Your task to perform on an android device: Open Android settings Image 0: 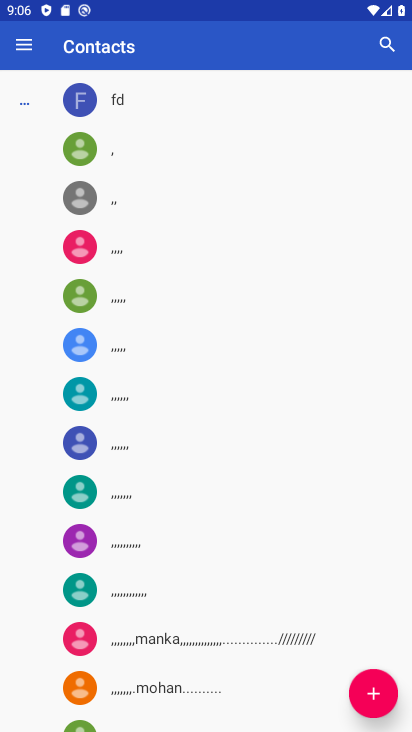
Step 0: press back button
Your task to perform on an android device: Open Android settings Image 1: 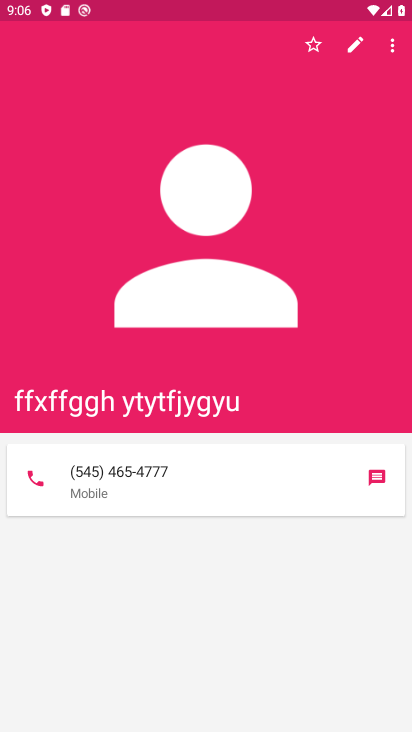
Step 1: press home button
Your task to perform on an android device: Open Android settings Image 2: 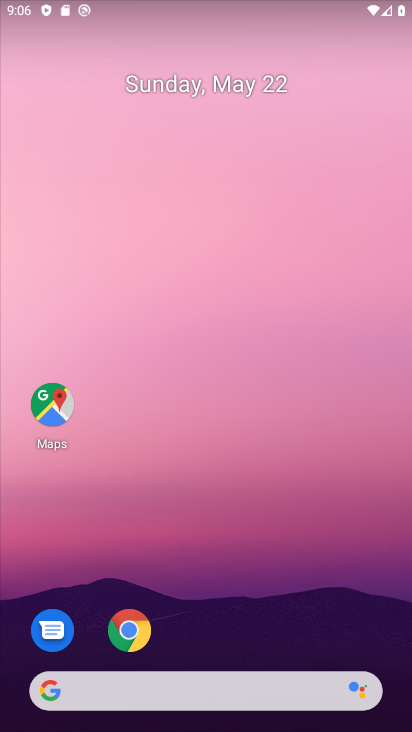
Step 2: drag from (396, 656) to (399, 312)
Your task to perform on an android device: Open Android settings Image 3: 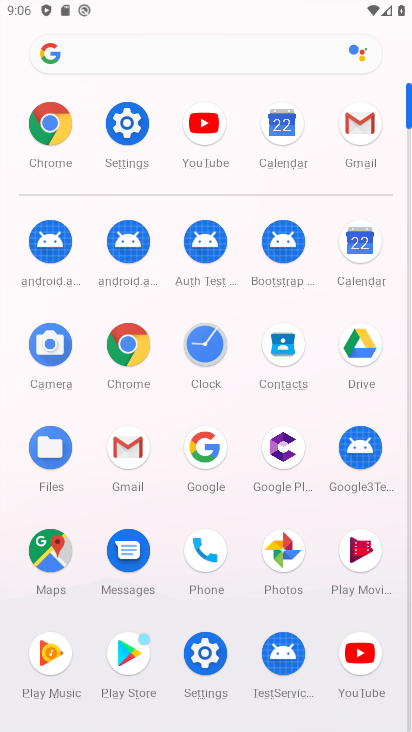
Step 3: click (200, 648)
Your task to perform on an android device: Open Android settings Image 4: 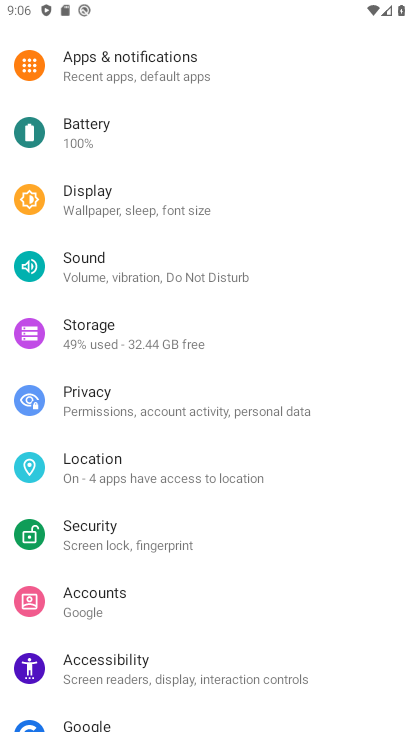
Step 4: task complete